Your task to perform on an android device: Open sound settings Image 0: 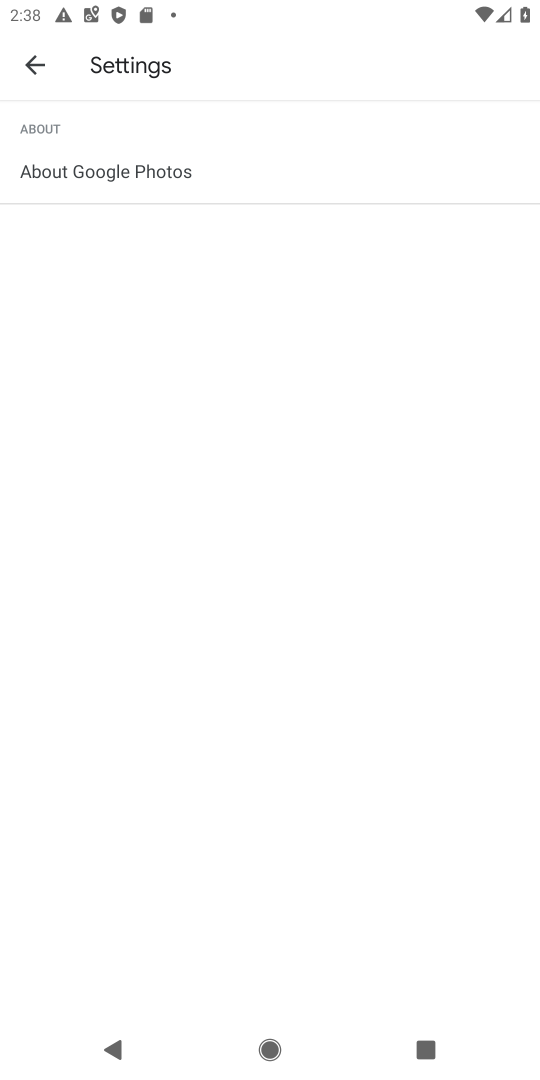
Step 0: press back button
Your task to perform on an android device: Open sound settings Image 1: 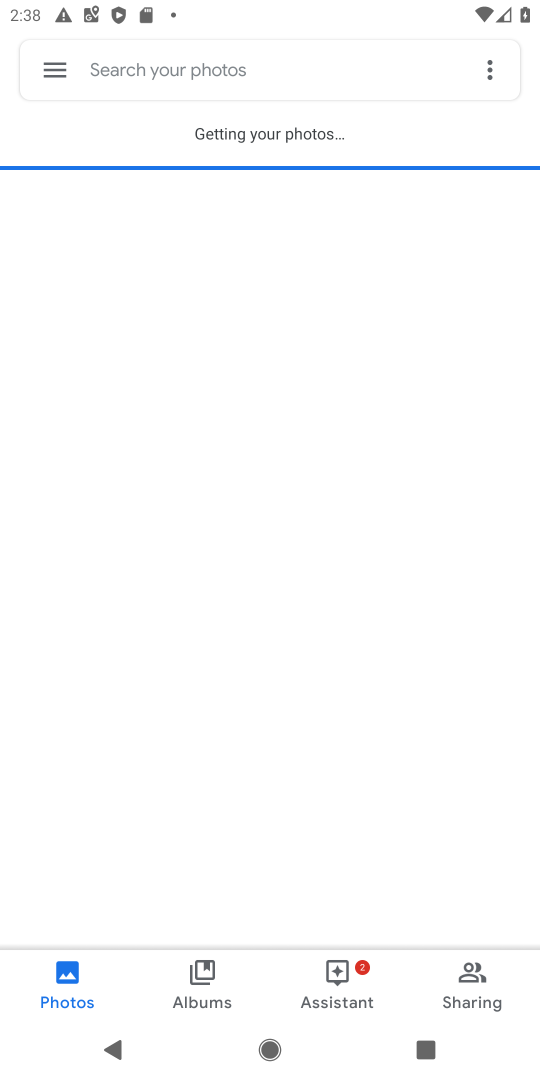
Step 1: press back button
Your task to perform on an android device: Open sound settings Image 2: 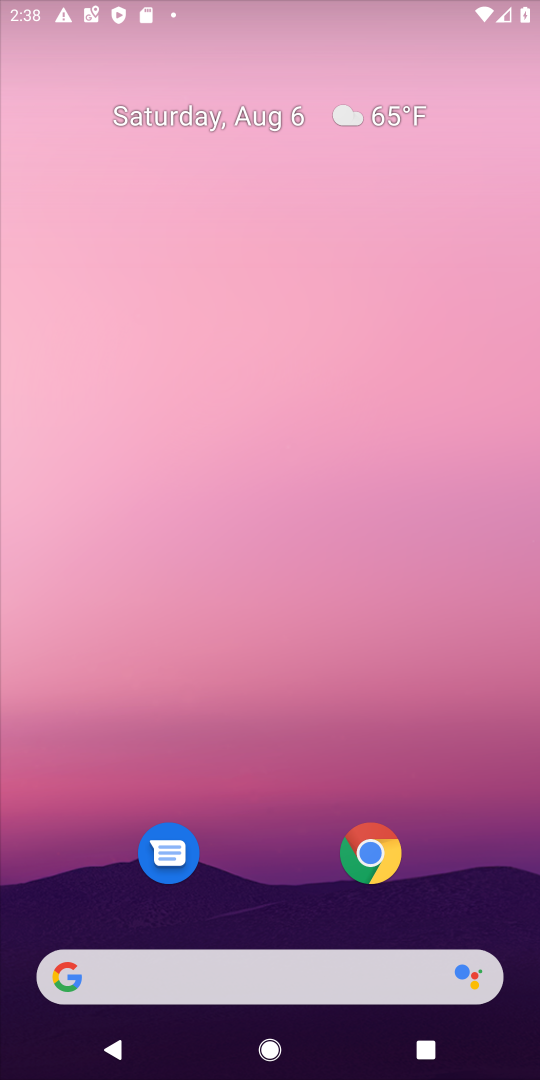
Step 2: click (352, 58)
Your task to perform on an android device: Open sound settings Image 3: 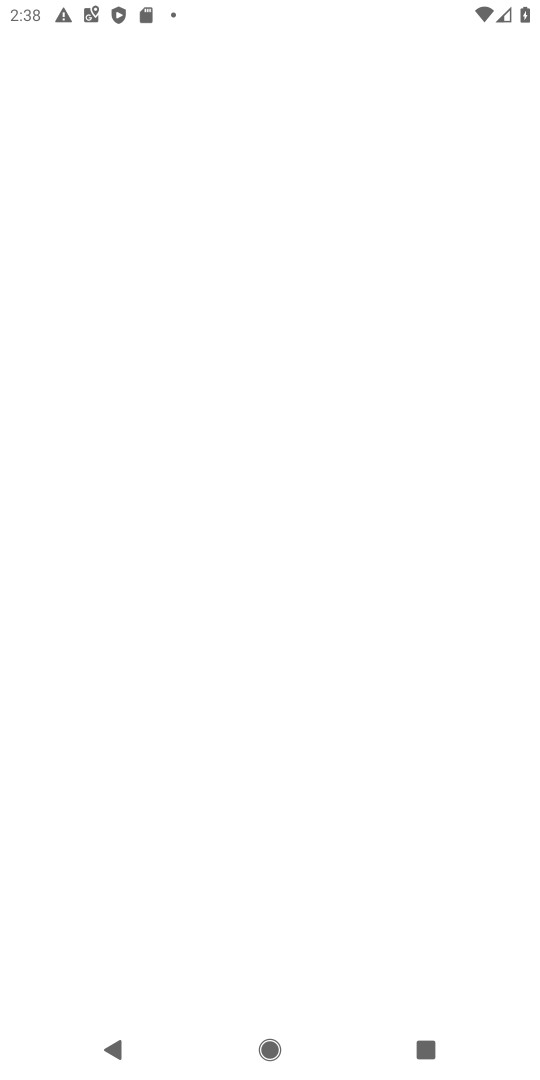
Step 3: drag from (276, 772) to (315, 130)
Your task to perform on an android device: Open sound settings Image 4: 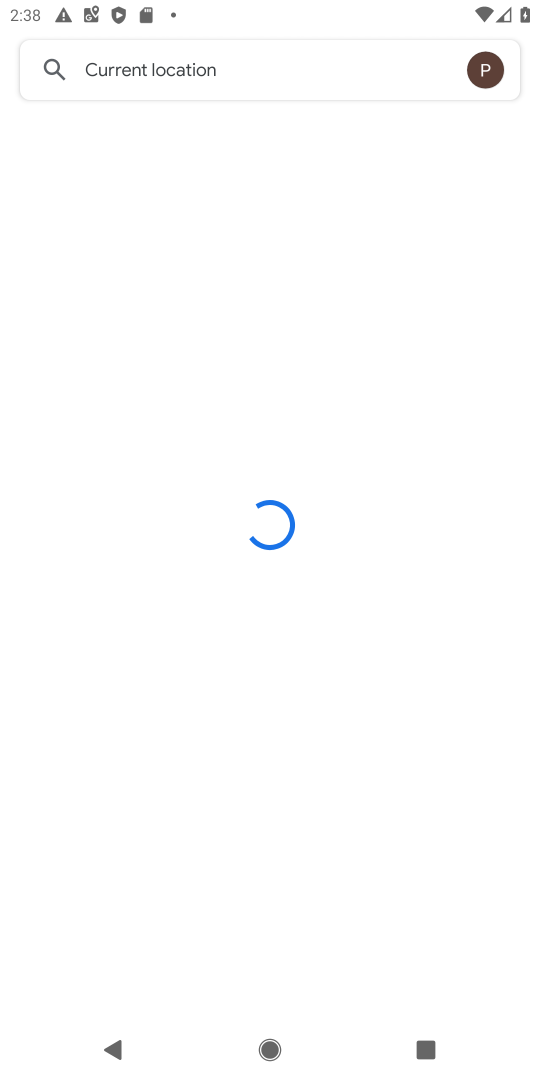
Step 4: press back button
Your task to perform on an android device: Open sound settings Image 5: 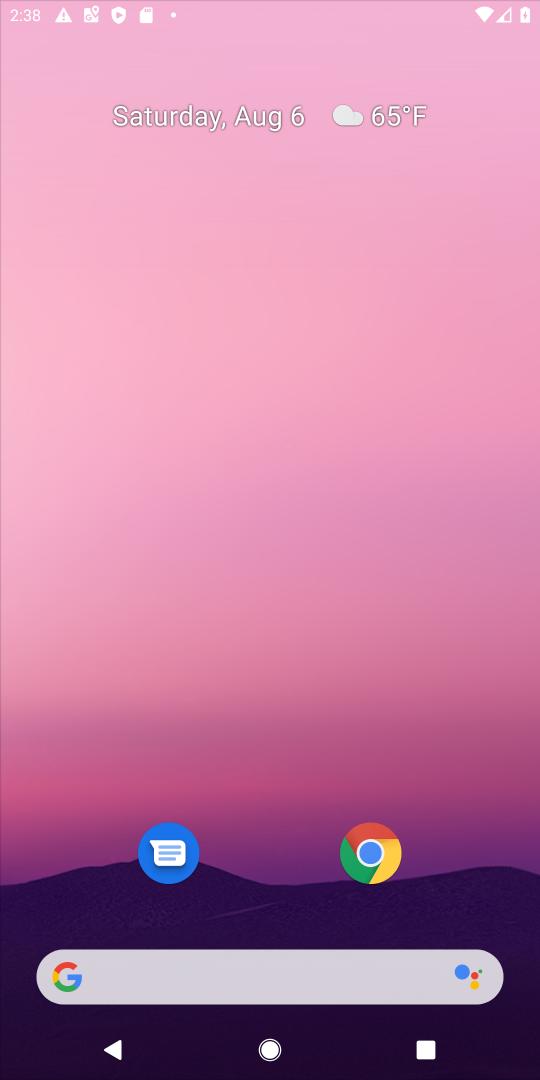
Step 5: press back button
Your task to perform on an android device: Open sound settings Image 6: 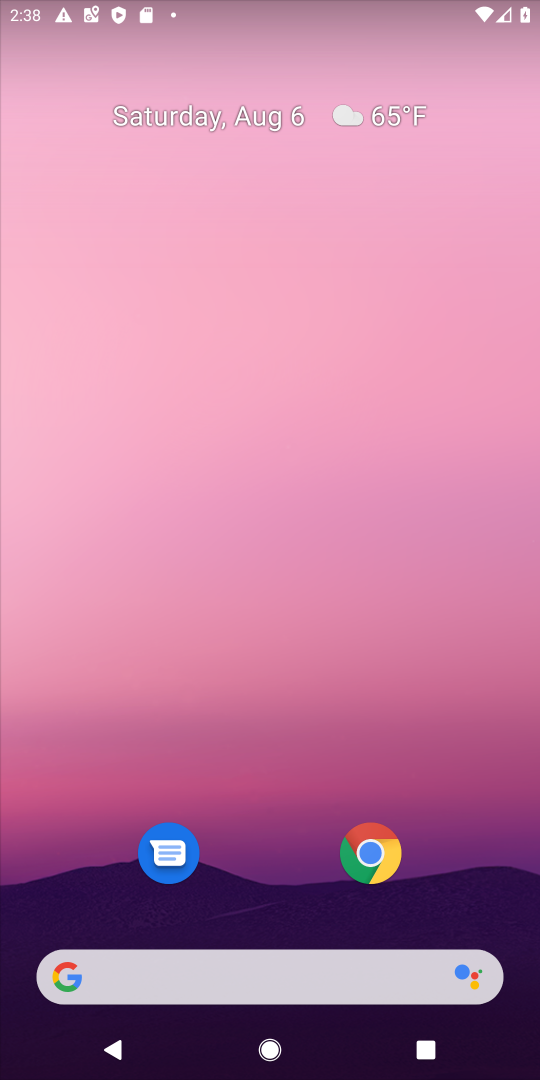
Step 6: drag from (249, 601) to (280, 91)
Your task to perform on an android device: Open sound settings Image 7: 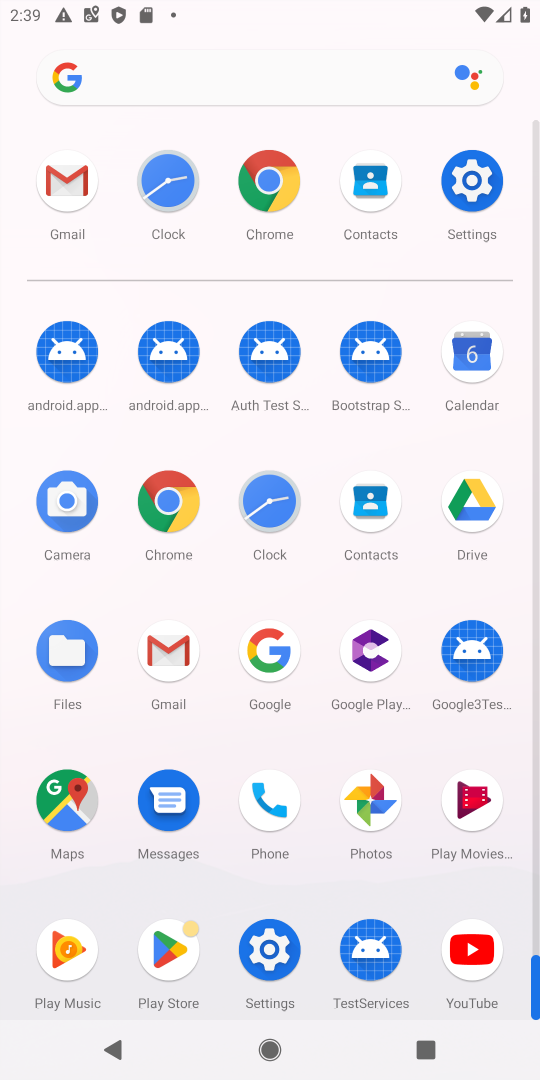
Step 7: click (468, 174)
Your task to perform on an android device: Open sound settings Image 8: 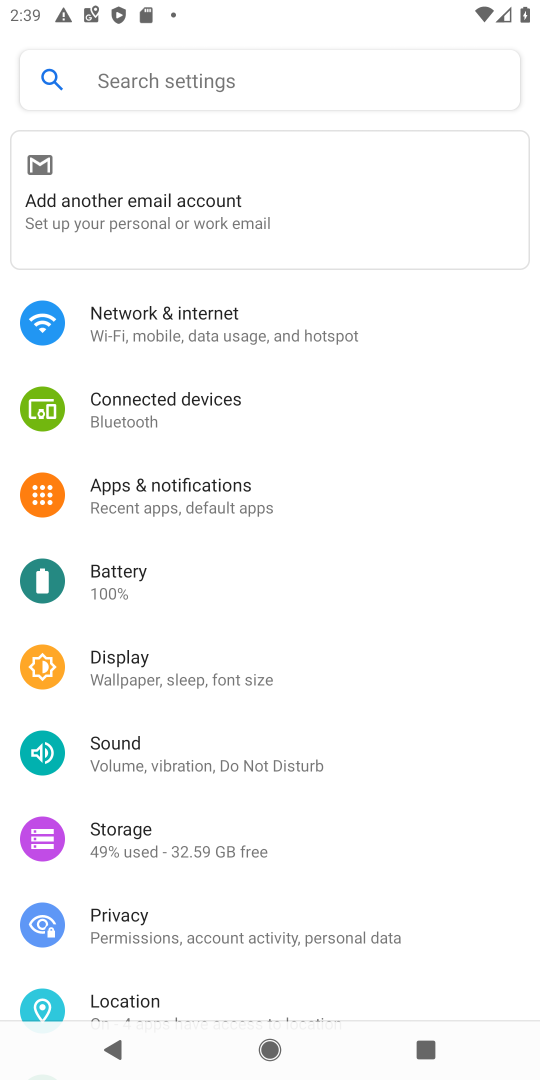
Step 8: click (132, 753)
Your task to perform on an android device: Open sound settings Image 9: 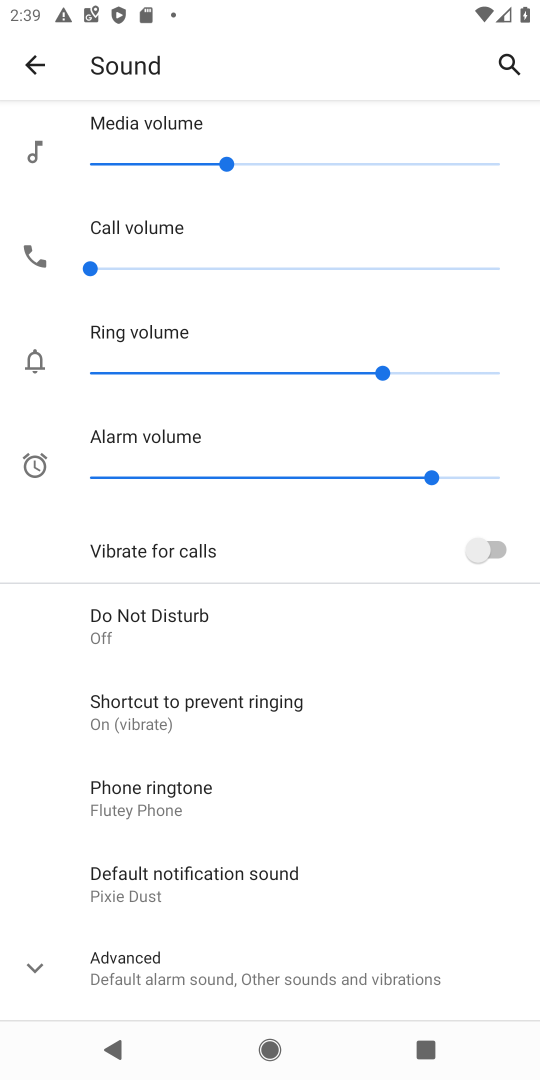
Step 9: task complete